Your task to perform on an android device: Open Google Chrome and open the bookmarks view Image 0: 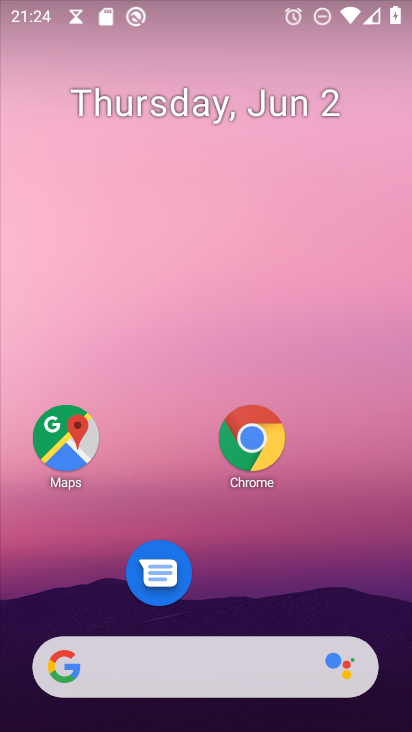
Step 0: press home button
Your task to perform on an android device: Open Google Chrome and open the bookmarks view Image 1: 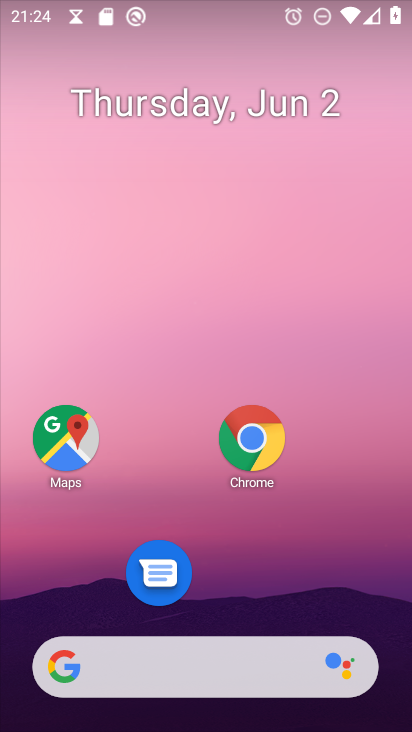
Step 1: click (257, 436)
Your task to perform on an android device: Open Google Chrome and open the bookmarks view Image 2: 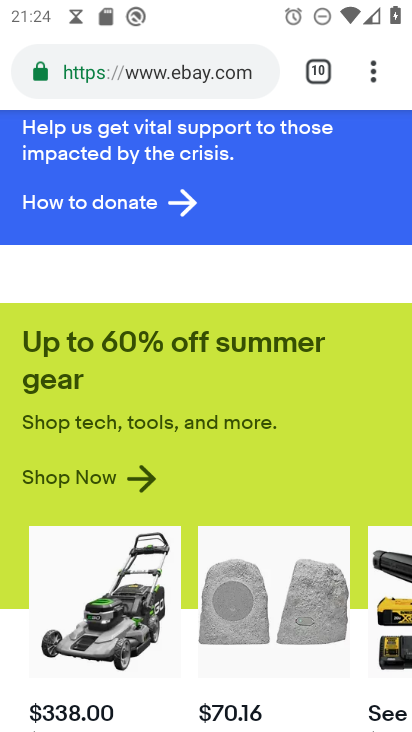
Step 2: task complete